Your task to perform on an android device: Search for the Nintendo Switch. Image 0: 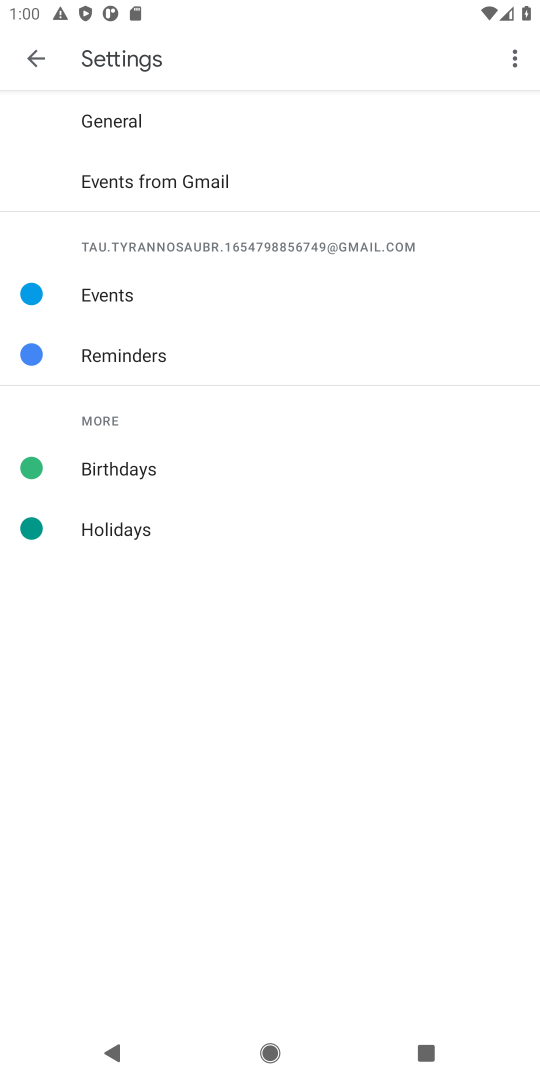
Step 0: press home button
Your task to perform on an android device: Search for the Nintendo Switch. Image 1: 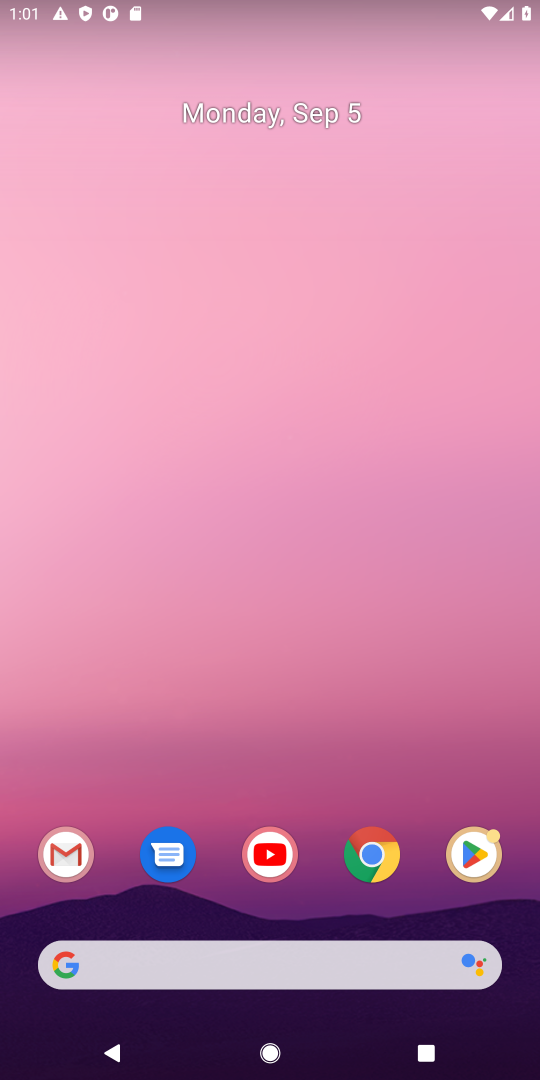
Step 1: click (320, 968)
Your task to perform on an android device: Search for the Nintendo Switch. Image 2: 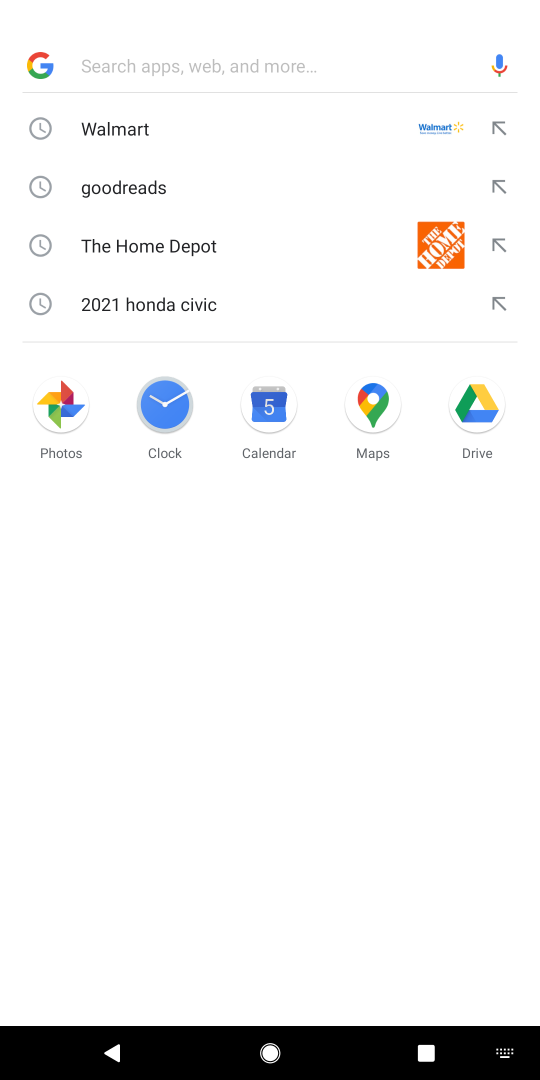
Step 2: type "Nintendo Switch"
Your task to perform on an android device: Search for the Nintendo Switch. Image 3: 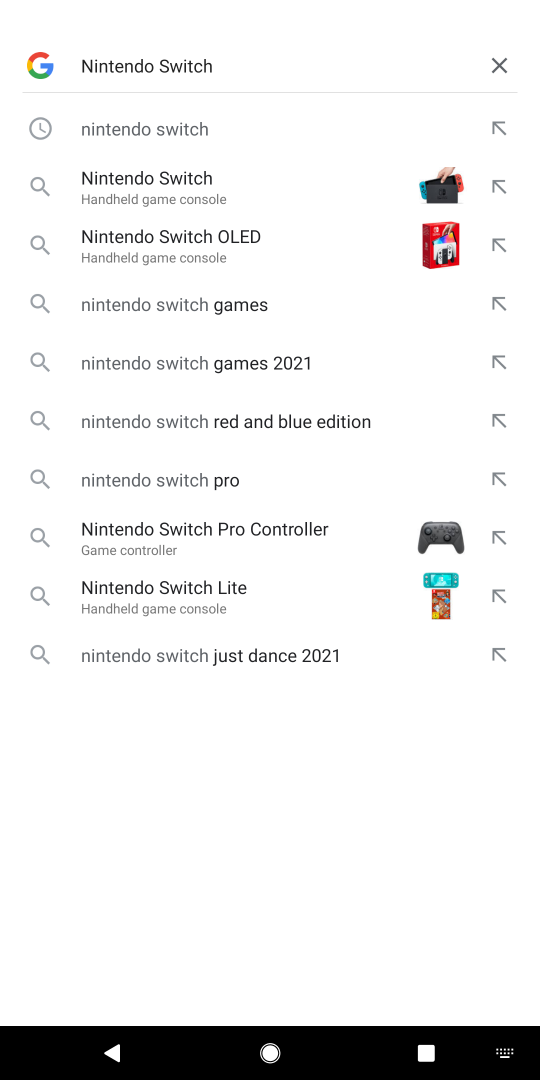
Step 3: press enter
Your task to perform on an android device: Search for the Nintendo Switch. Image 4: 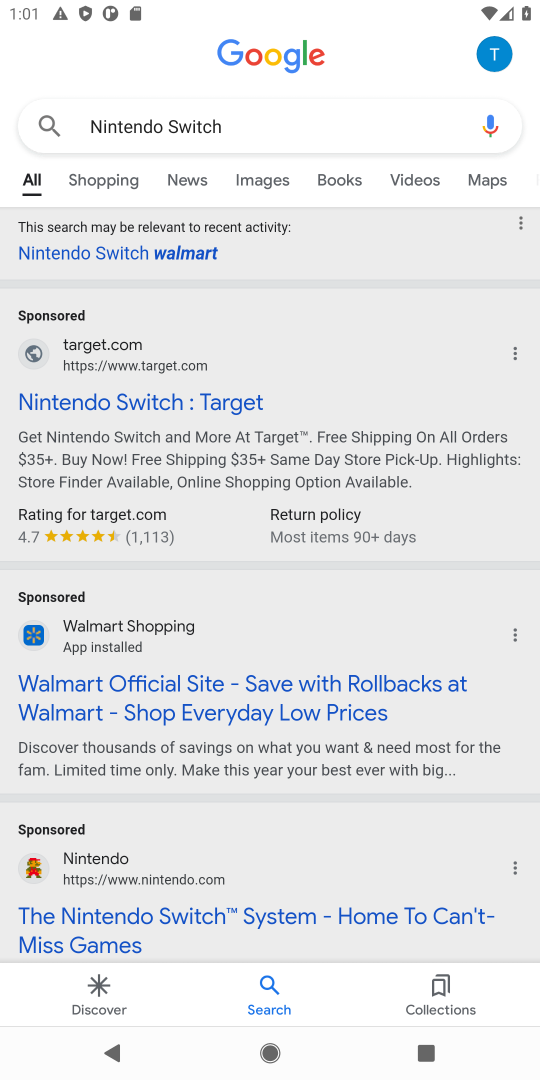
Step 4: drag from (372, 304) to (347, 577)
Your task to perform on an android device: Search for the Nintendo Switch. Image 5: 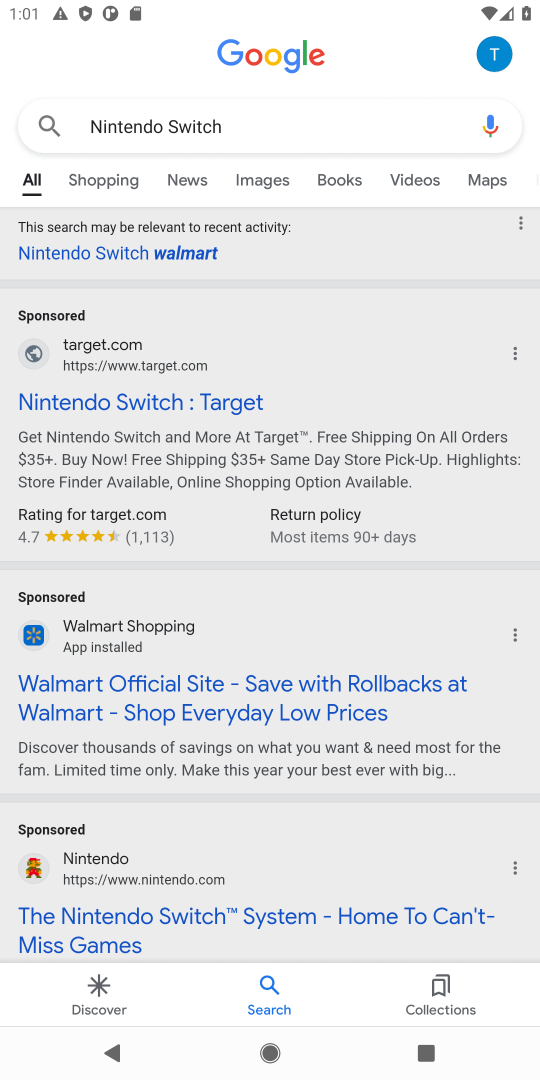
Step 5: click (84, 396)
Your task to perform on an android device: Search for the Nintendo Switch. Image 6: 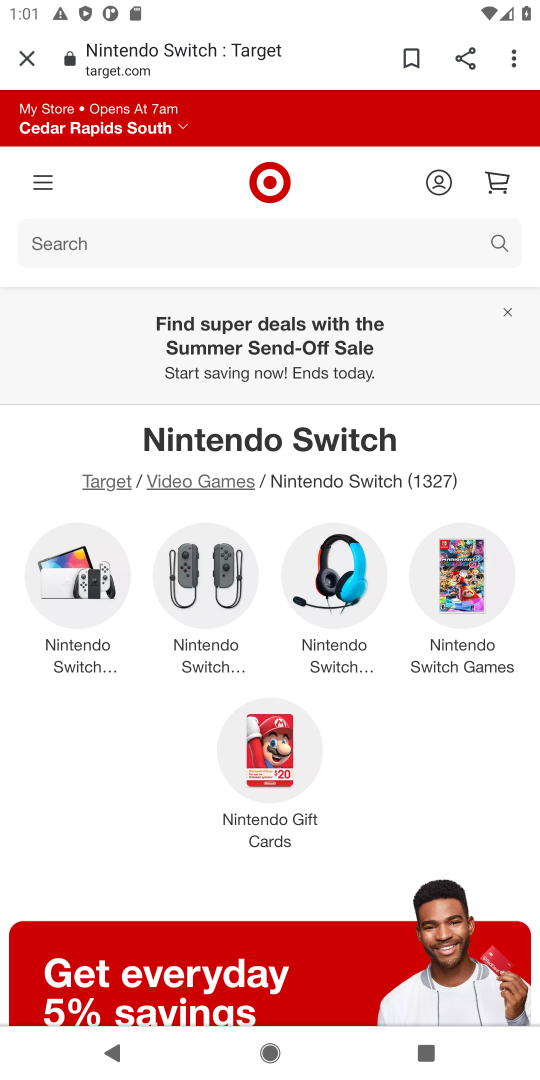
Step 6: click (224, 242)
Your task to perform on an android device: Search for the Nintendo Switch. Image 7: 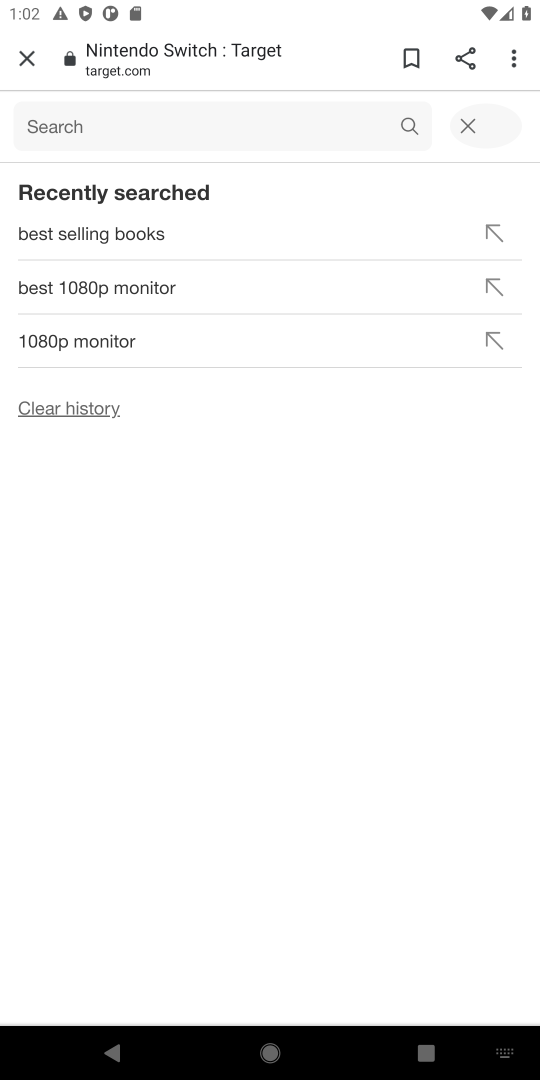
Step 7: type "nintendo switch"
Your task to perform on an android device: Search for the Nintendo Switch. Image 8: 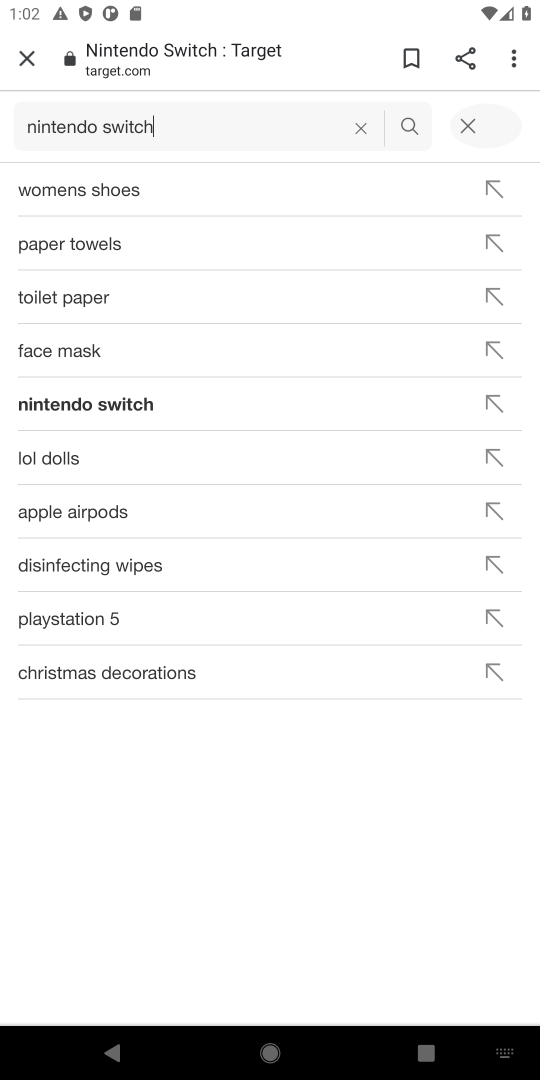
Step 8: press enter
Your task to perform on an android device: Search for the Nintendo Switch. Image 9: 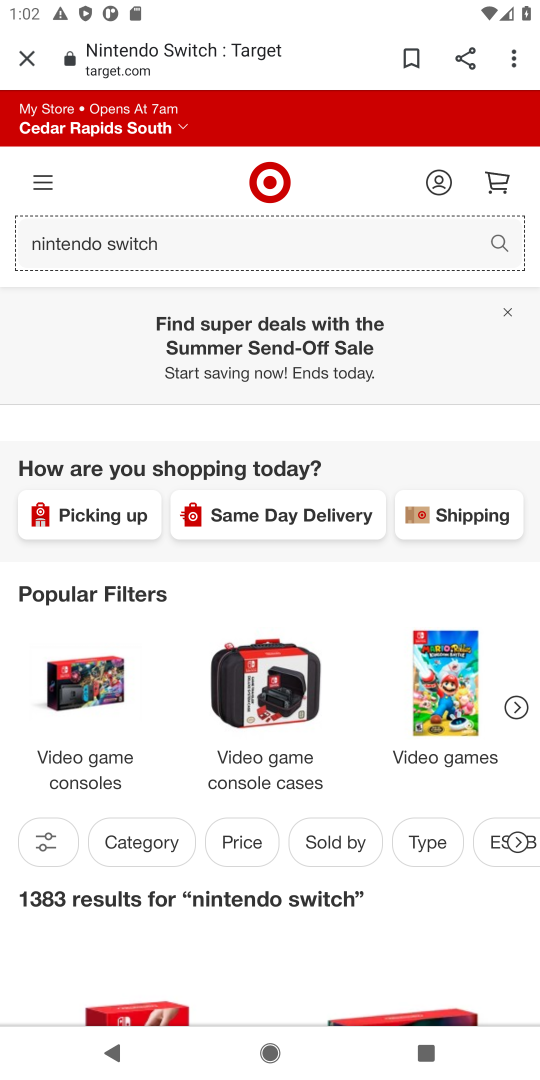
Step 9: task complete